Your task to perform on an android device: What's on my calendar tomorrow? Image 0: 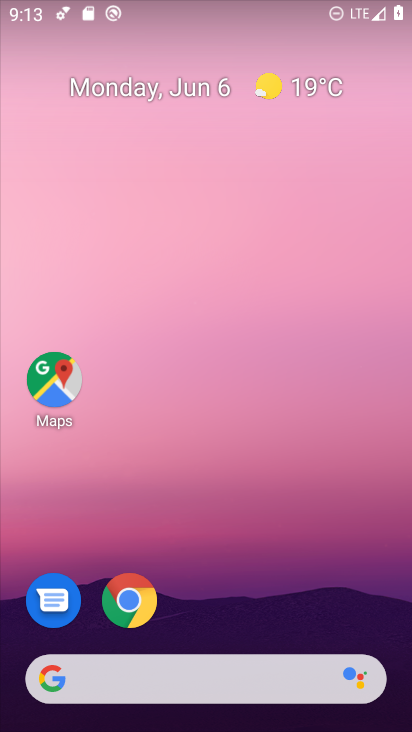
Step 0: click (158, 84)
Your task to perform on an android device: What's on my calendar tomorrow? Image 1: 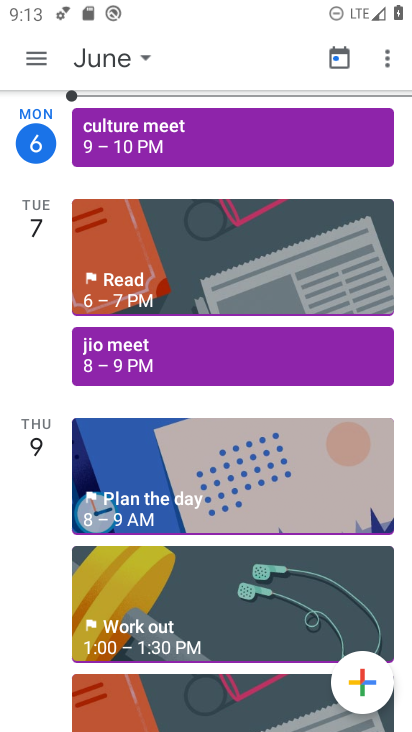
Step 1: task complete